Your task to perform on an android device: When is my next appointment? Image 0: 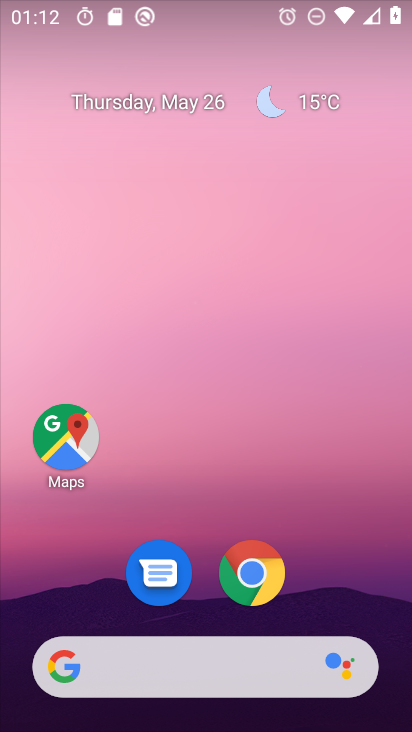
Step 0: drag from (348, 605) to (321, 0)
Your task to perform on an android device: When is my next appointment? Image 1: 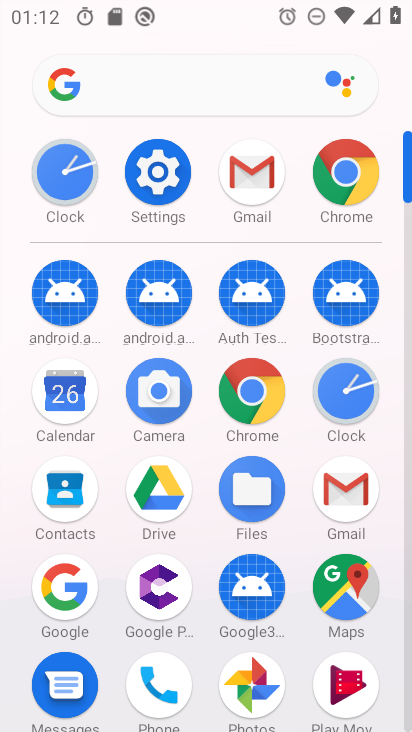
Step 1: click (60, 401)
Your task to perform on an android device: When is my next appointment? Image 2: 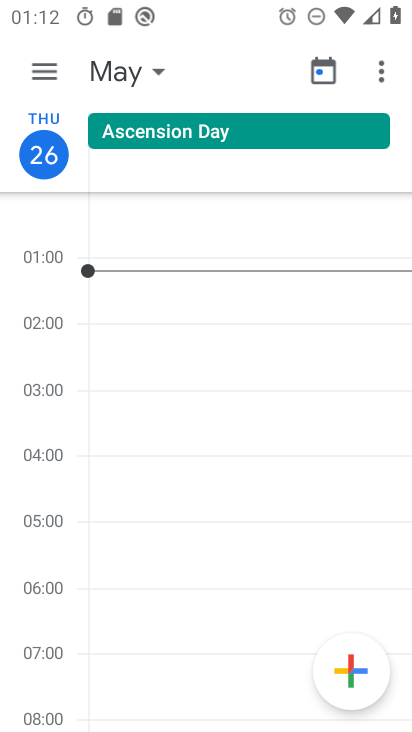
Step 2: click (44, 75)
Your task to perform on an android device: When is my next appointment? Image 3: 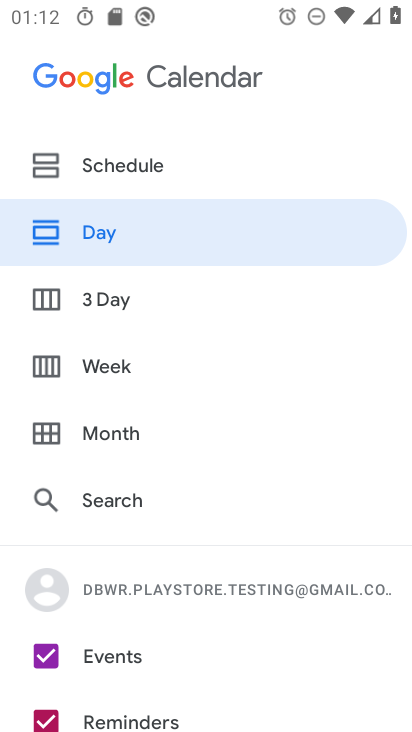
Step 3: click (73, 167)
Your task to perform on an android device: When is my next appointment? Image 4: 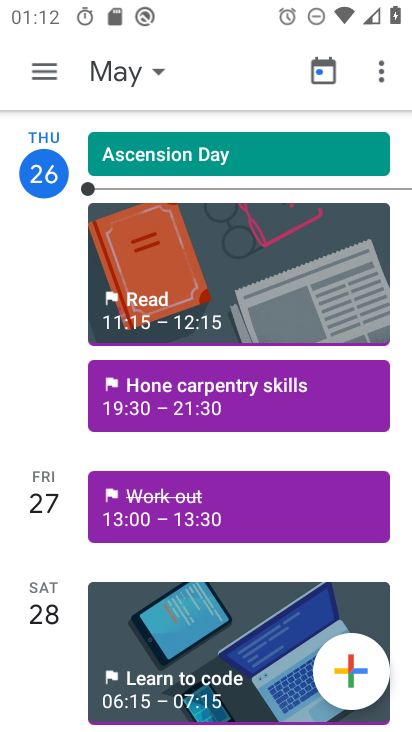
Step 4: drag from (211, 554) to (209, 235)
Your task to perform on an android device: When is my next appointment? Image 5: 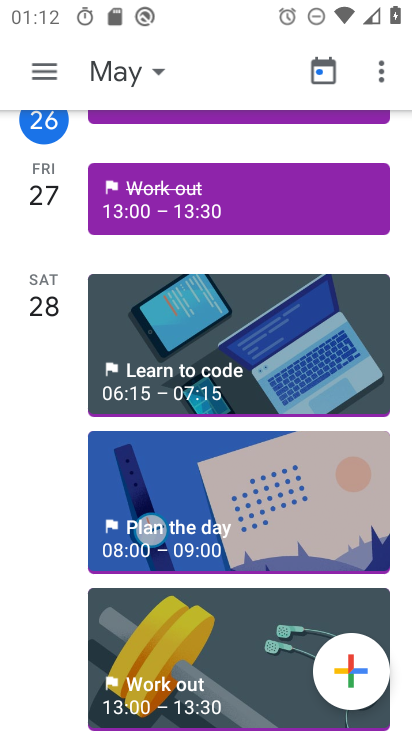
Step 5: drag from (162, 581) to (162, 192)
Your task to perform on an android device: When is my next appointment? Image 6: 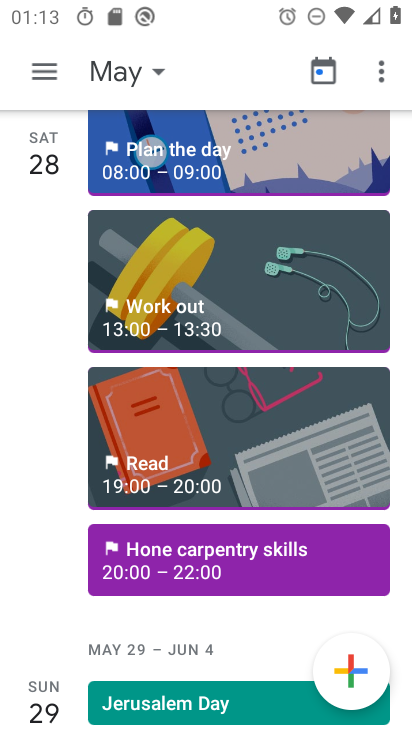
Step 6: drag from (139, 493) to (141, 222)
Your task to perform on an android device: When is my next appointment? Image 7: 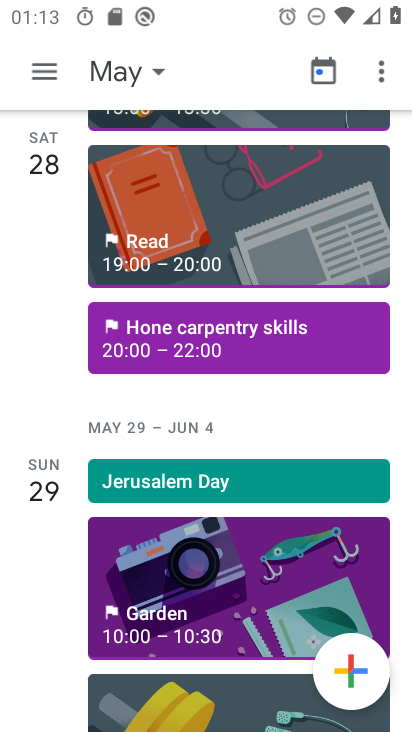
Step 7: drag from (115, 582) to (115, 290)
Your task to perform on an android device: When is my next appointment? Image 8: 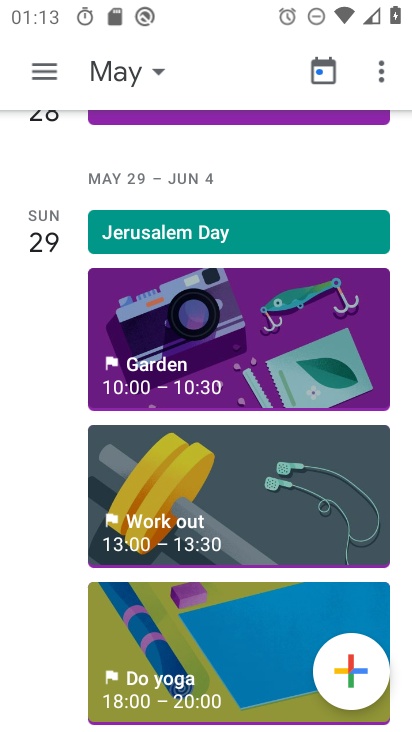
Step 8: drag from (100, 516) to (100, 324)
Your task to perform on an android device: When is my next appointment? Image 9: 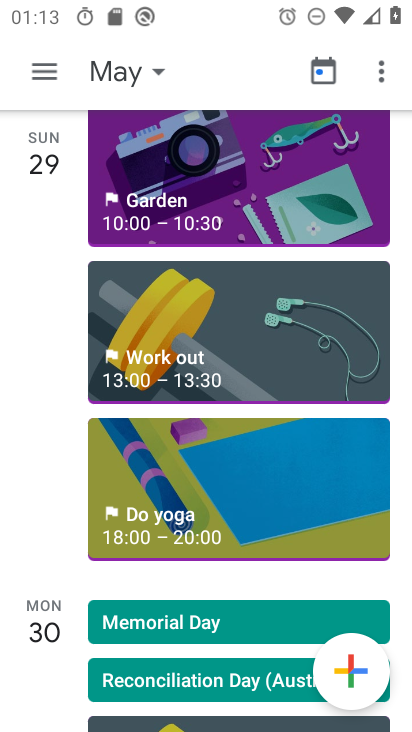
Step 9: drag from (90, 536) to (88, 385)
Your task to perform on an android device: When is my next appointment? Image 10: 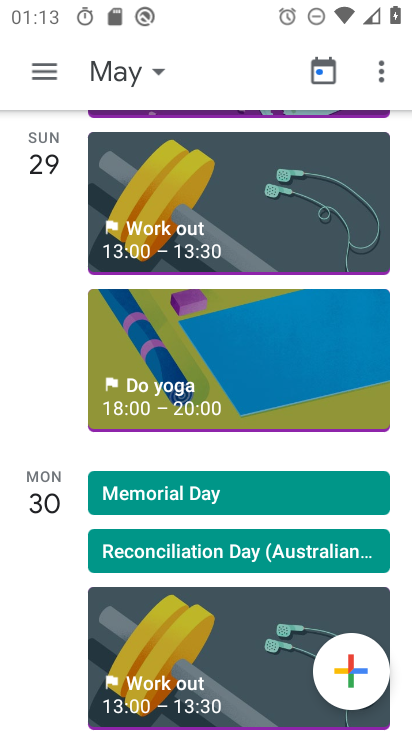
Step 10: drag from (128, 583) to (151, 242)
Your task to perform on an android device: When is my next appointment? Image 11: 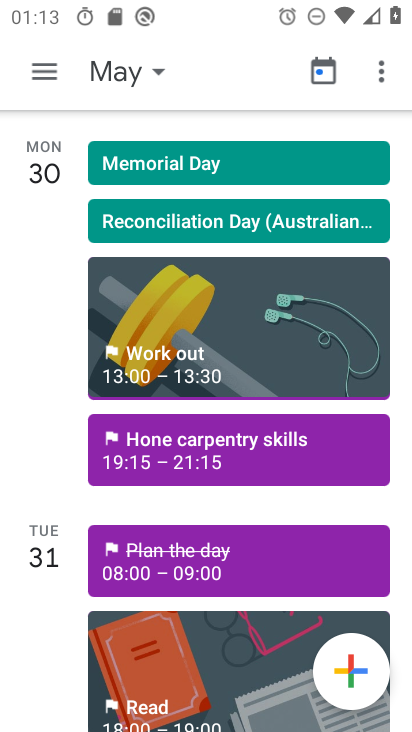
Step 11: drag from (148, 562) to (157, 204)
Your task to perform on an android device: When is my next appointment? Image 12: 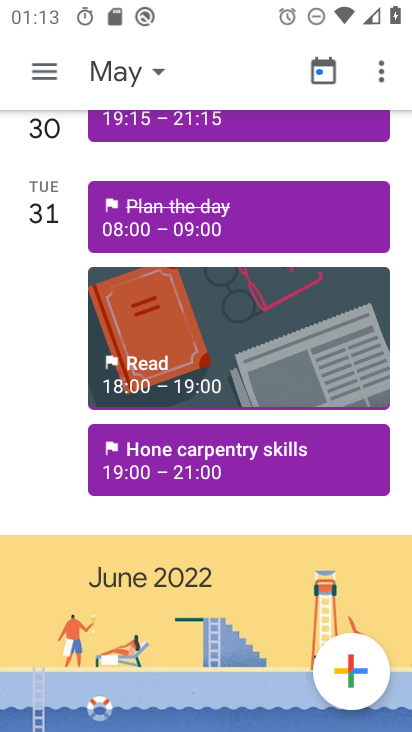
Step 12: drag from (156, 619) to (142, 165)
Your task to perform on an android device: When is my next appointment? Image 13: 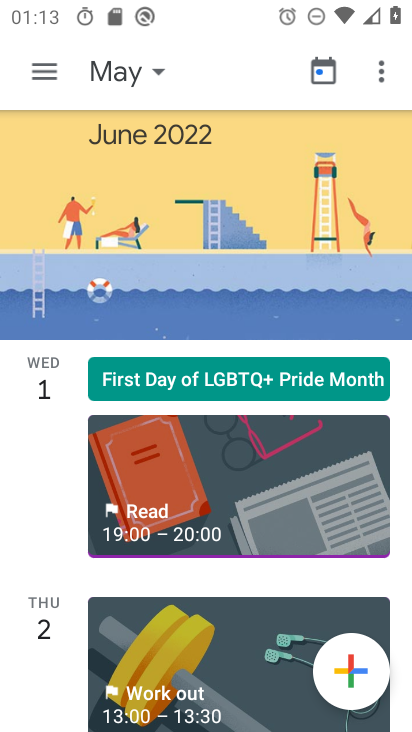
Step 13: drag from (183, 603) to (170, 117)
Your task to perform on an android device: When is my next appointment? Image 14: 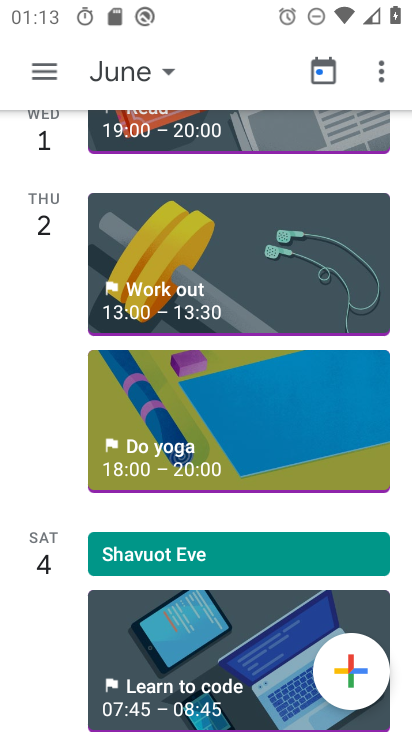
Step 14: drag from (195, 562) to (145, 110)
Your task to perform on an android device: When is my next appointment? Image 15: 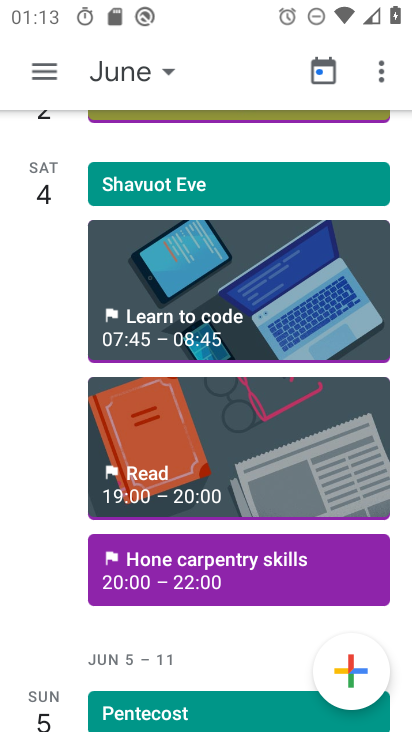
Step 15: drag from (164, 567) to (138, 89)
Your task to perform on an android device: When is my next appointment? Image 16: 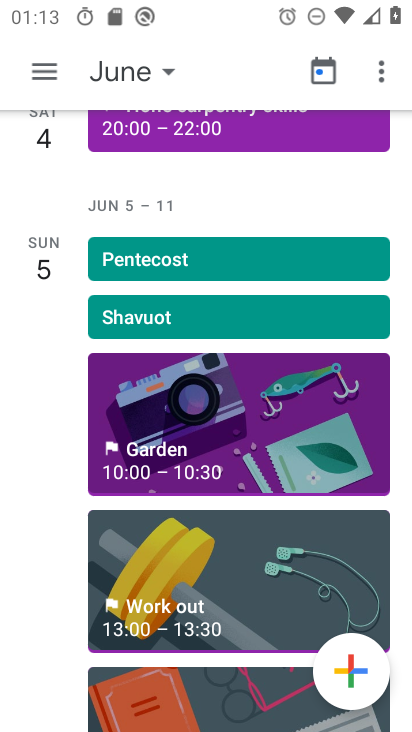
Step 16: drag from (145, 564) to (151, 45)
Your task to perform on an android device: When is my next appointment? Image 17: 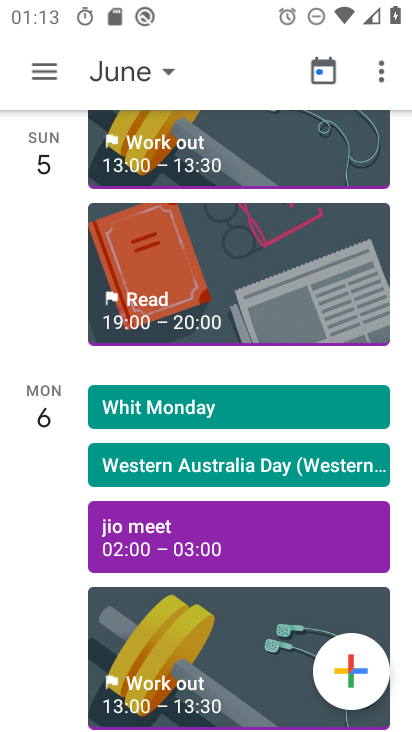
Step 17: click (170, 534)
Your task to perform on an android device: When is my next appointment? Image 18: 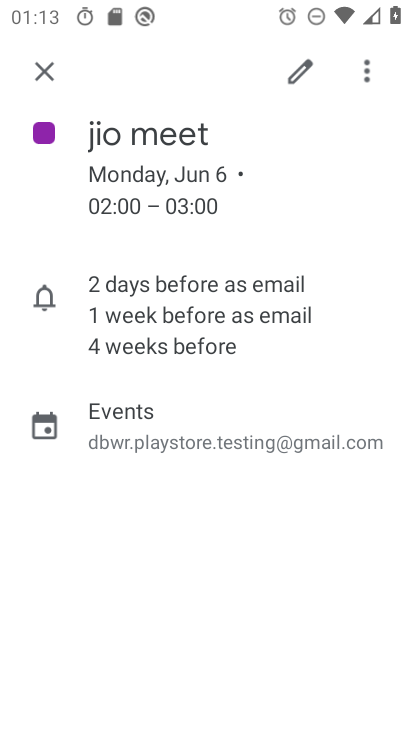
Step 18: task complete